Your task to perform on an android device: turn off translation in the chrome app Image 0: 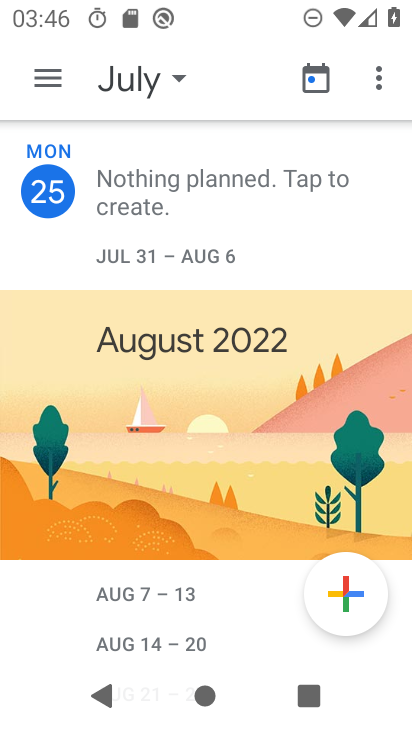
Step 0: press back button
Your task to perform on an android device: turn off translation in the chrome app Image 1: 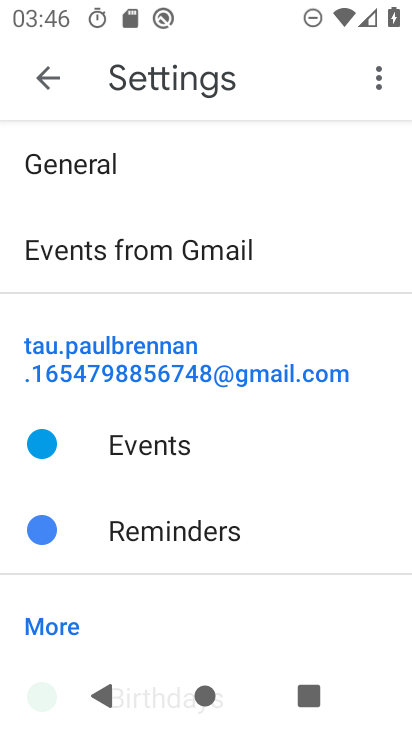
Step 1: press home button
Your task to perform on an android device: turn off translation in the chrome app Image 2: 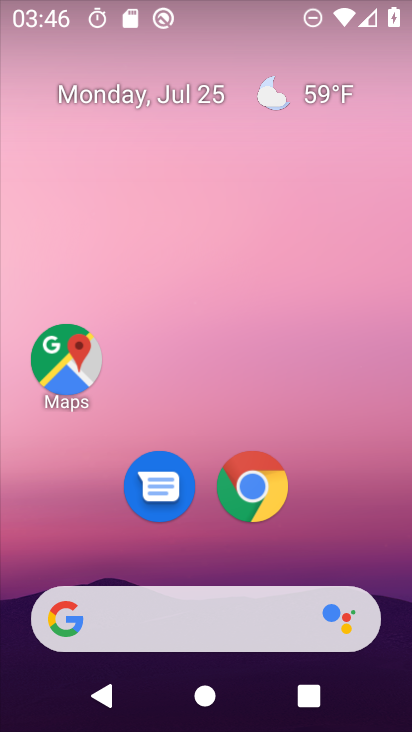
Step 2: click (254, 496)
Your task to perform on an android device: turn off translation in the chrome app Image 3: 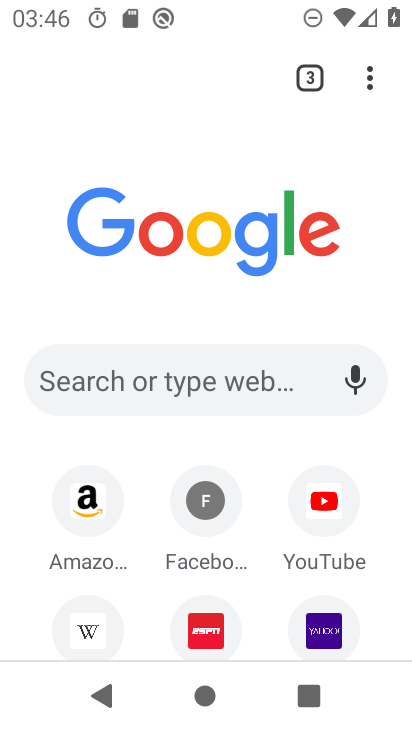
Step 3: drag from (373, 64) to (149, 542)
Your task to perform on an android device: turn off translation in the chrome app Image 4: 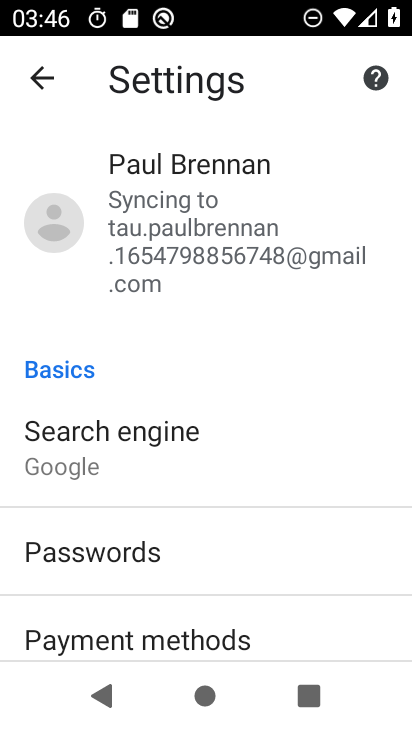
Step 4: drag from (129, 613) to (228, 148)
Your task to perform on an android device: turn off translation in the chrome app Image 5: 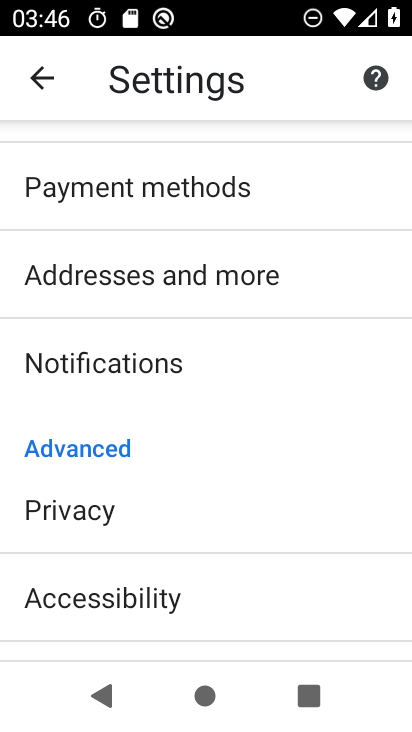
Step 5: drag from (142, 604) to (210, 202)
Your task to perform on an android device: turn off translation in the chrome app Image 6: 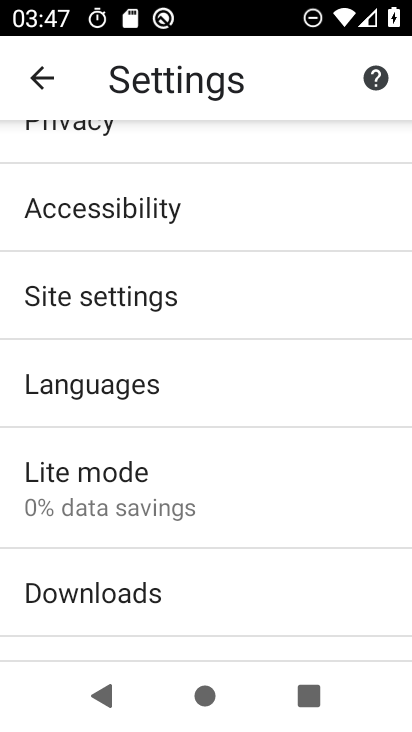
Step 6: drag from (119, 572) to (181, 210)
Your task to perform on an android device: turn off translation in the chrome app Image 7: 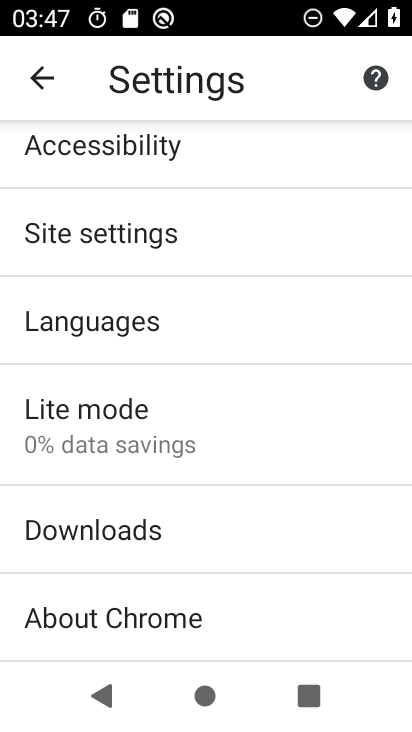
Step 7: click (102, 319)
Your task to perform on an android device: turn off translation in the chrome app Image 8: 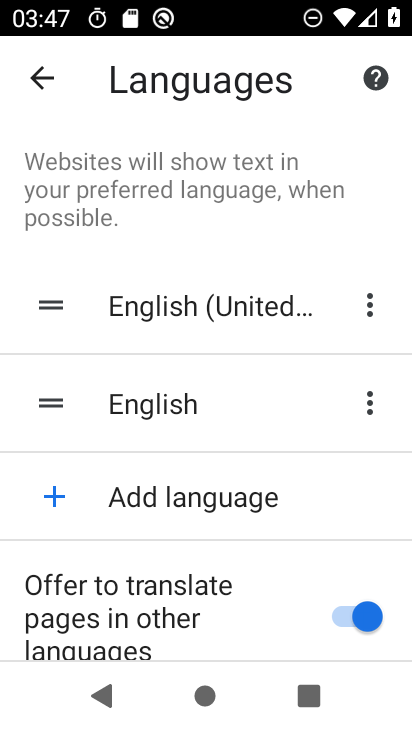
Step 8: click (361, 614)
Your task to perform on an android device: turn off translation in the chrome app Image 9: 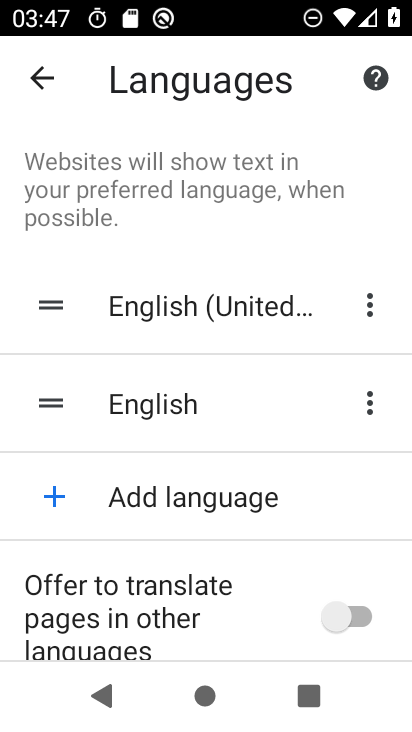
Step 9: task complete